Your task to perform on an android device: set the stopwatch Image 0: 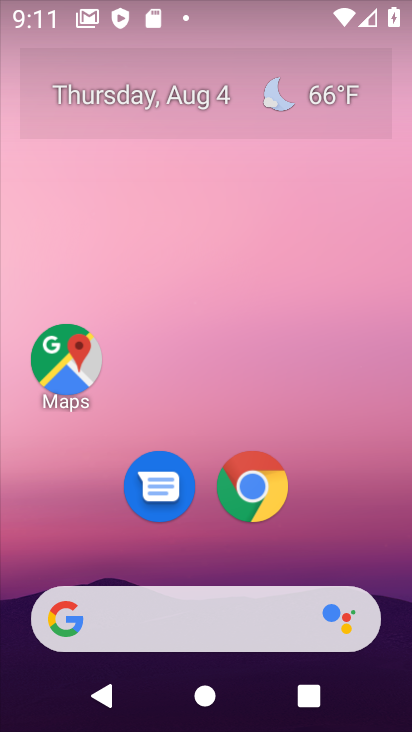
Step 0: drag from (222, 400) to (206, 129)
Your task to perform on an android device: set the stopwatch Image 1: 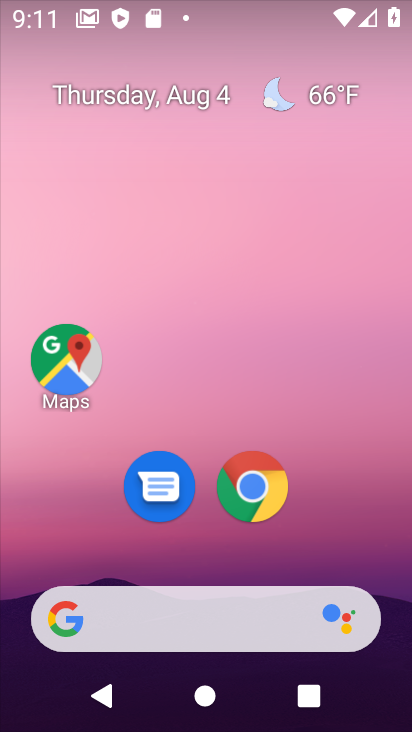
Step 1: drag from (228, 354) to (246, 70)
Your task to perform on an android device: set the stopwatch Image 2: 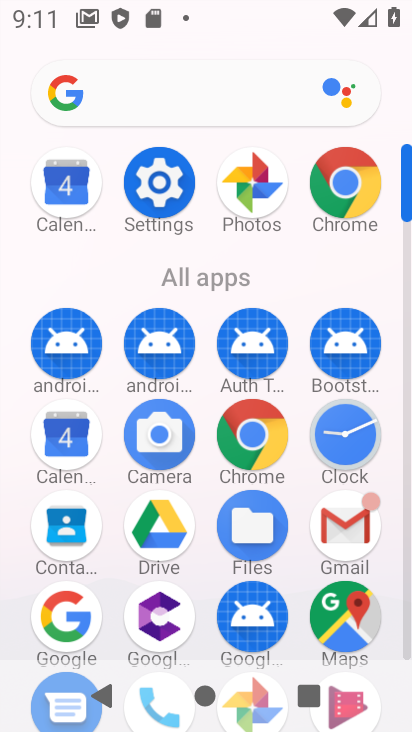
Step 2: drag from (199, 564) to (201, 361)
Your task to perform on an android device: set the stopwatch Image 3: 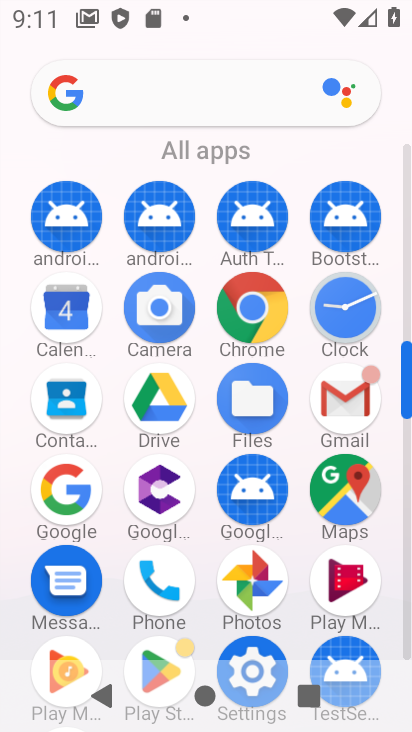
Step 3: drag from (201, 538) to (192, 340)
Your task to perform on an android device: set the stopwatch Image 4: 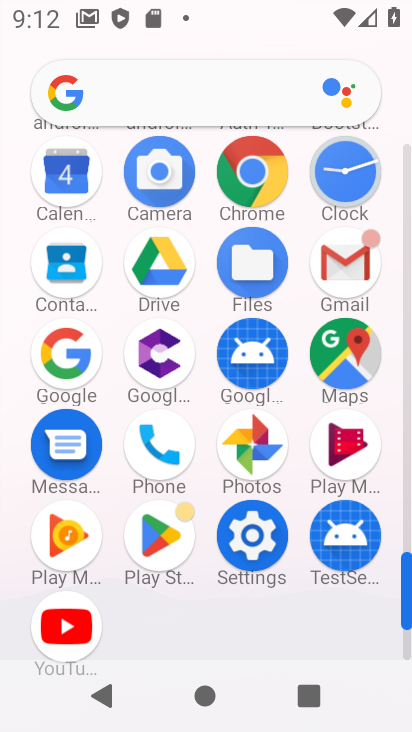
Step 4: click (345, 162)
Your task to perform on an android device: set the stopwatch Image 5: 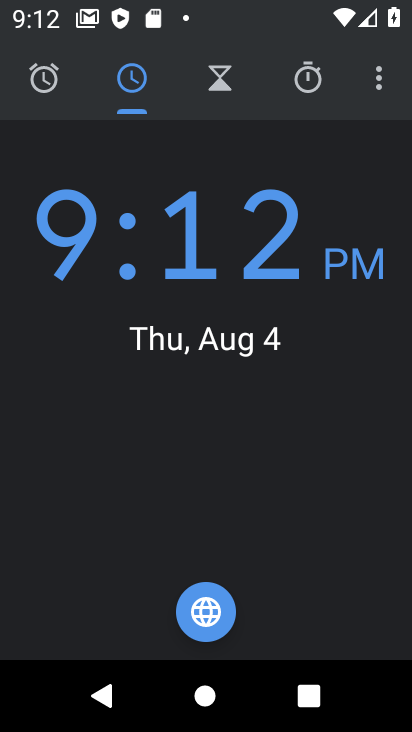
Step 5: click (317, 82)
Your task to perform on an android device: set the stopwatch Image 6: 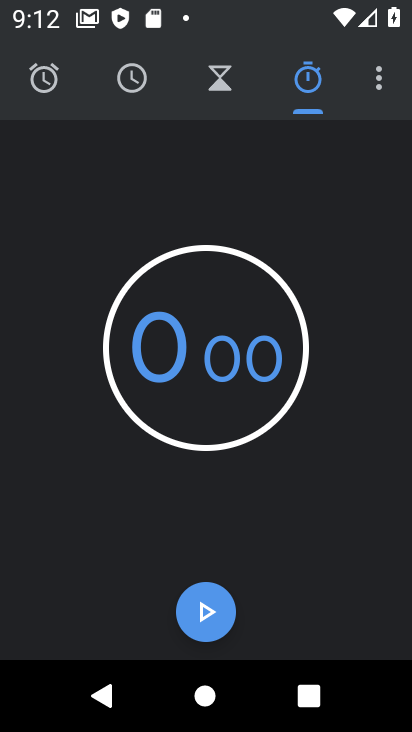
Step 6: task complete